Your task to perform on an android device: Search for vegetarian restaurants on Maps Image 0: 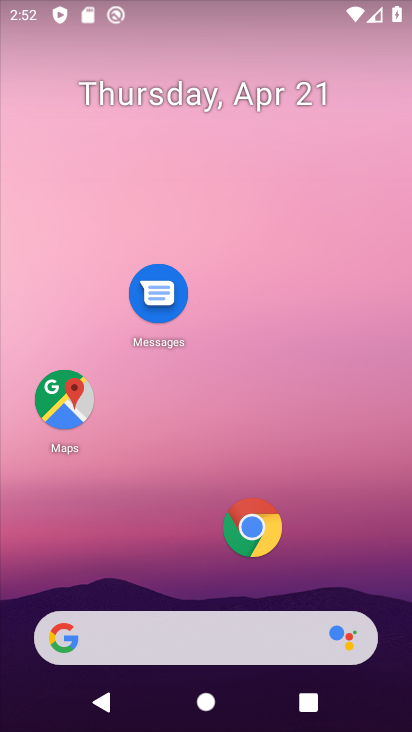
Step 0: click (54, 399)
Your task to perform on an android device: Search for vegetarian restaurants on Maps Image 1: 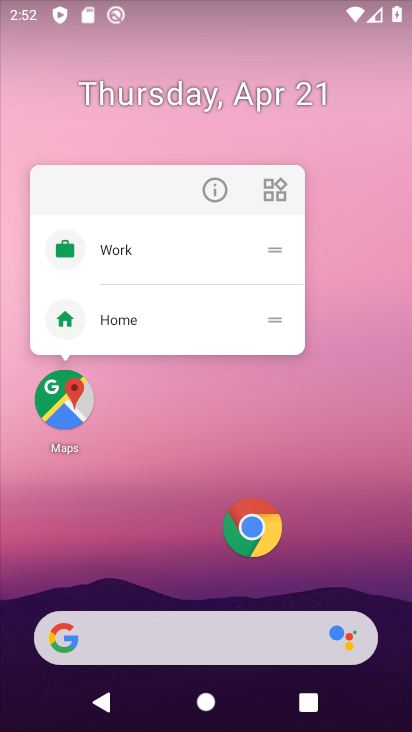
Step 1: click (65, 404)
Your task to perform on an android device: Search for vegetarian restaurants on Maps Image 2: 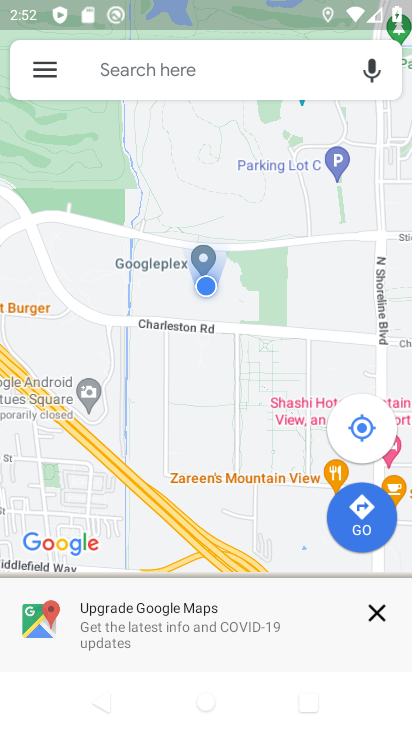
Step 2: click (168, 75)
Your task to perform on an android device: Search for vegetarian restaurants on Maps Image 3: 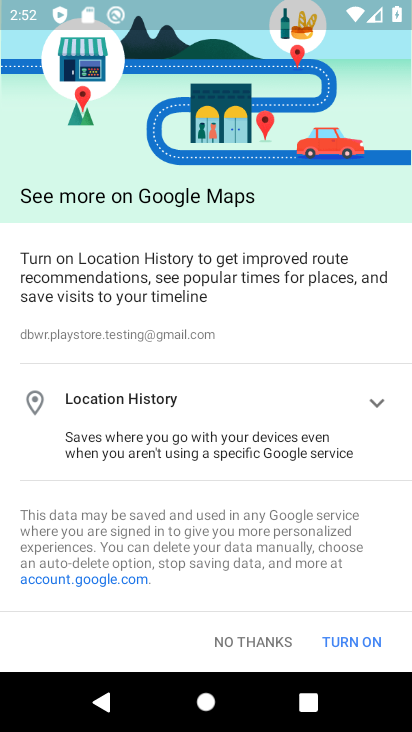
Step 3: click (333, 639)
Your task to perform on an android device: Search for vegetarian restaurants on Maps Image 4: 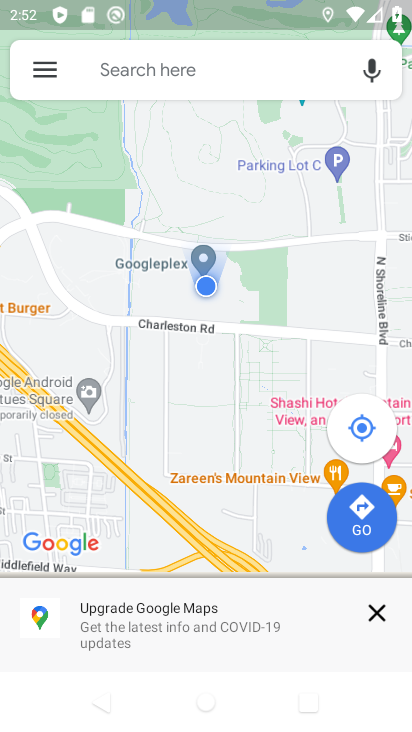
Step 4: click (174, 74)
Your task to perform on an android device: Search for vegetarian restaurants on Maps Image 5: 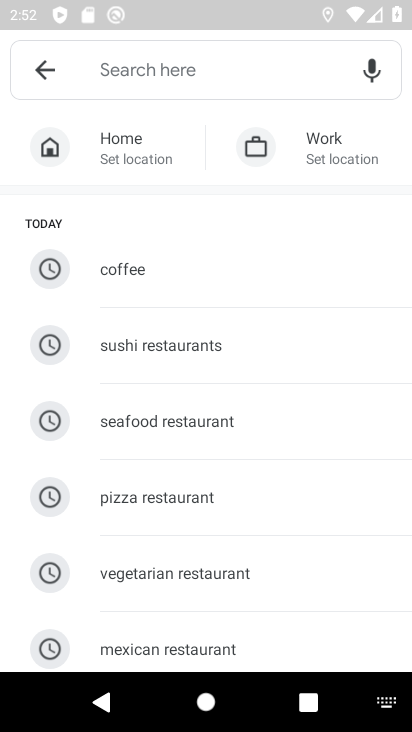
Step 5: click (142, 576)
Your task to perform on an android device: Search for vegetarian restaurants on Maps Image 6: 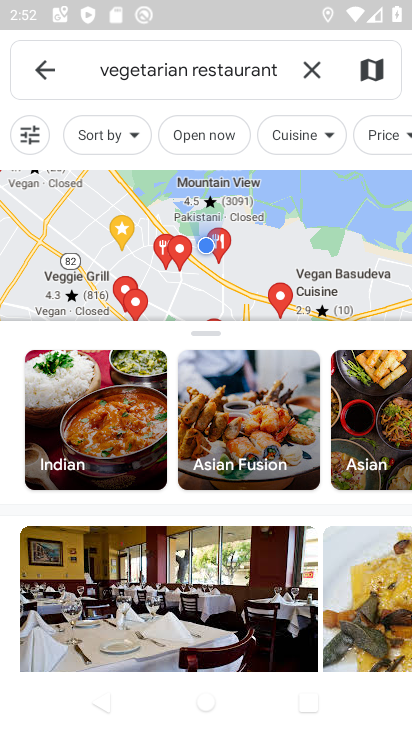
Step 6: task complete